Your task to perform on an android device: delete browsing data in the chrome app Image 0: 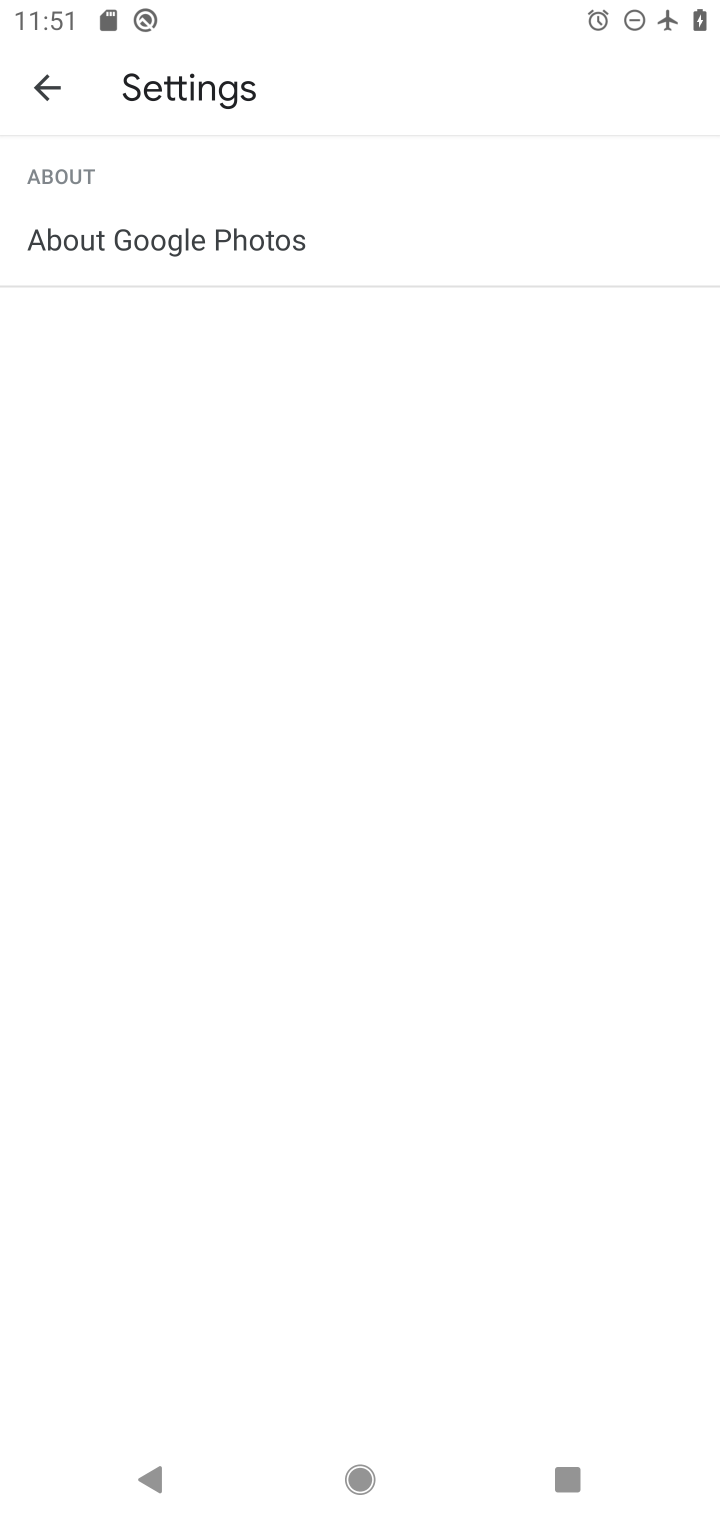
Step 0: press home button
Your task to perform on an android device: delete browsing data in the chrome app Image 1: 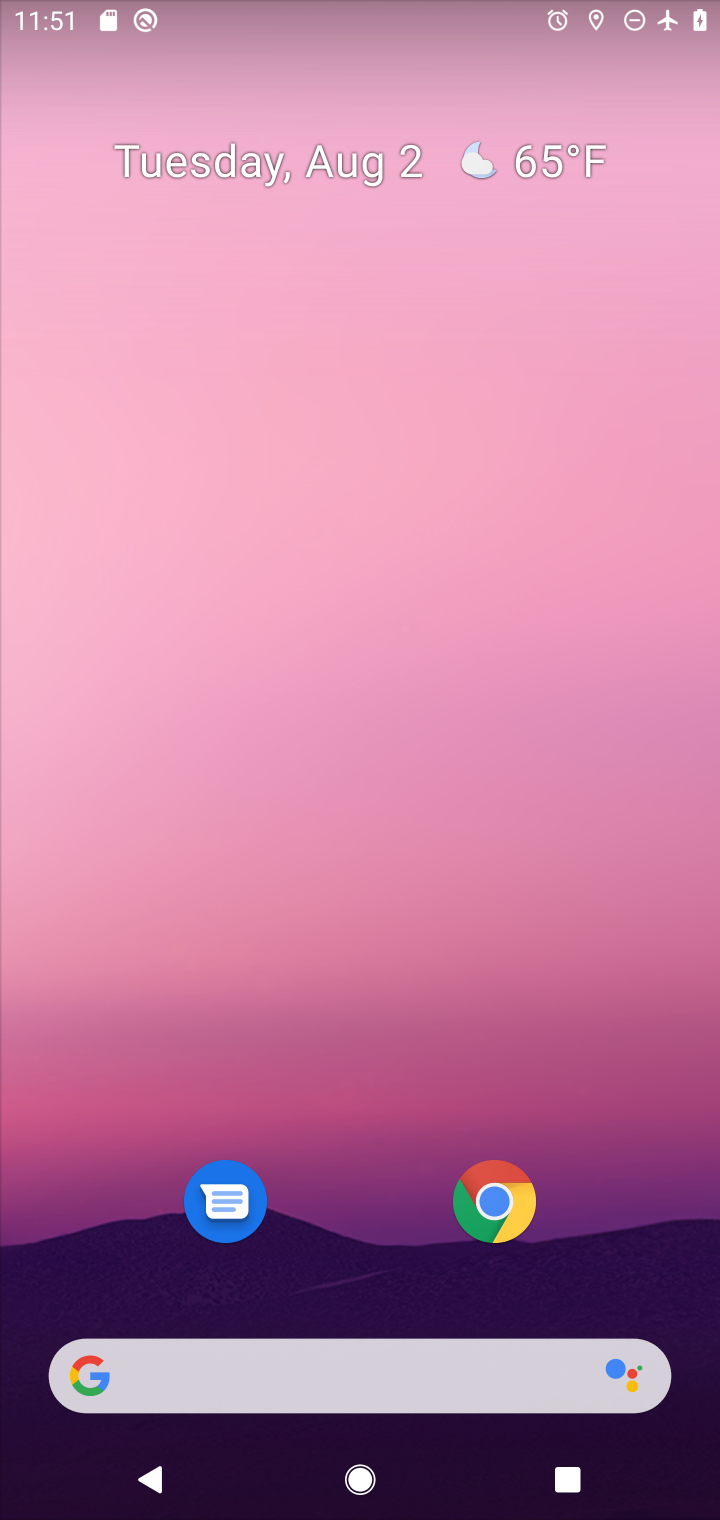
Step 1: drag from (425, 1367) to (580, 863)
Your task to perform on an android device: delete browsing data in the chrome app Image 2: 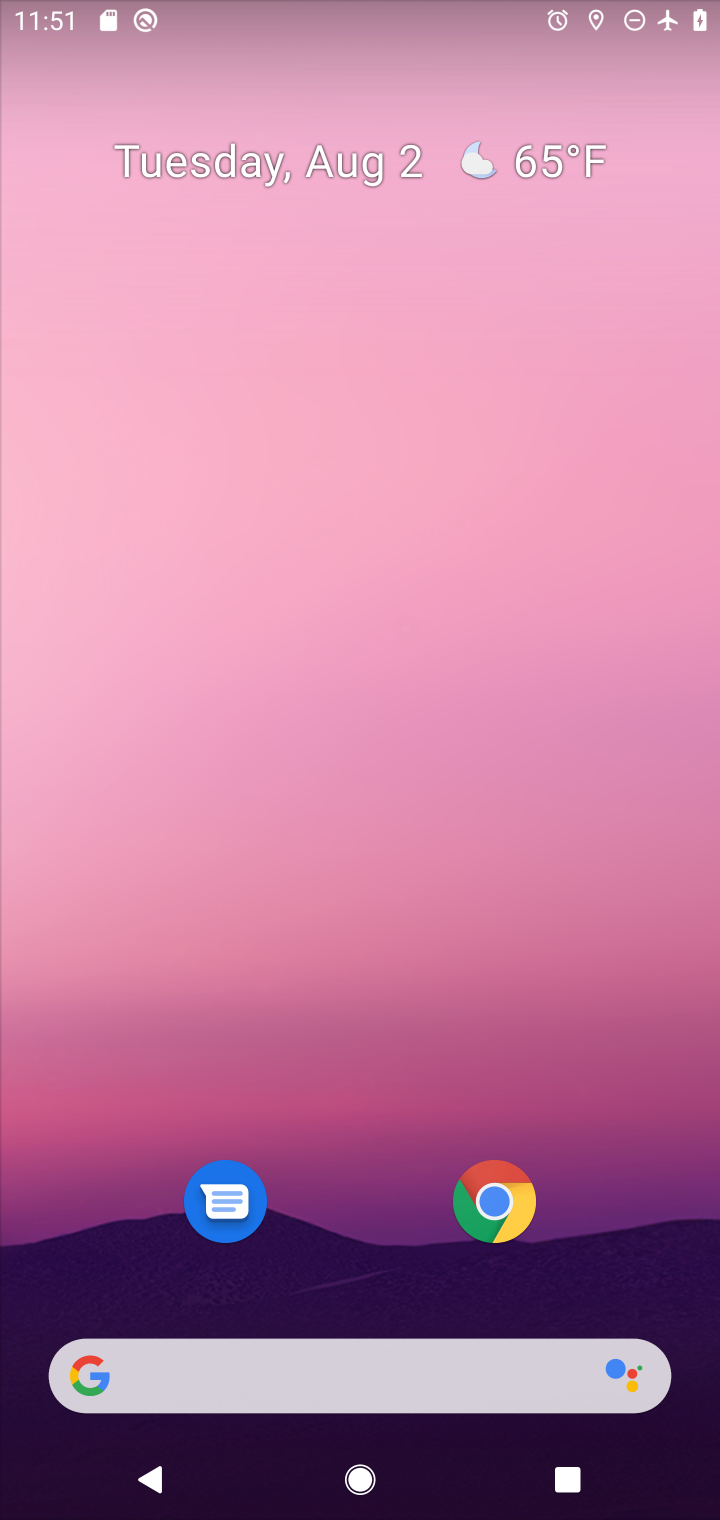
Step 2: drag from (432, 1315) to (391, 58)
Your task to perform on an android device: delete browsing data in the chrome app Image 3: 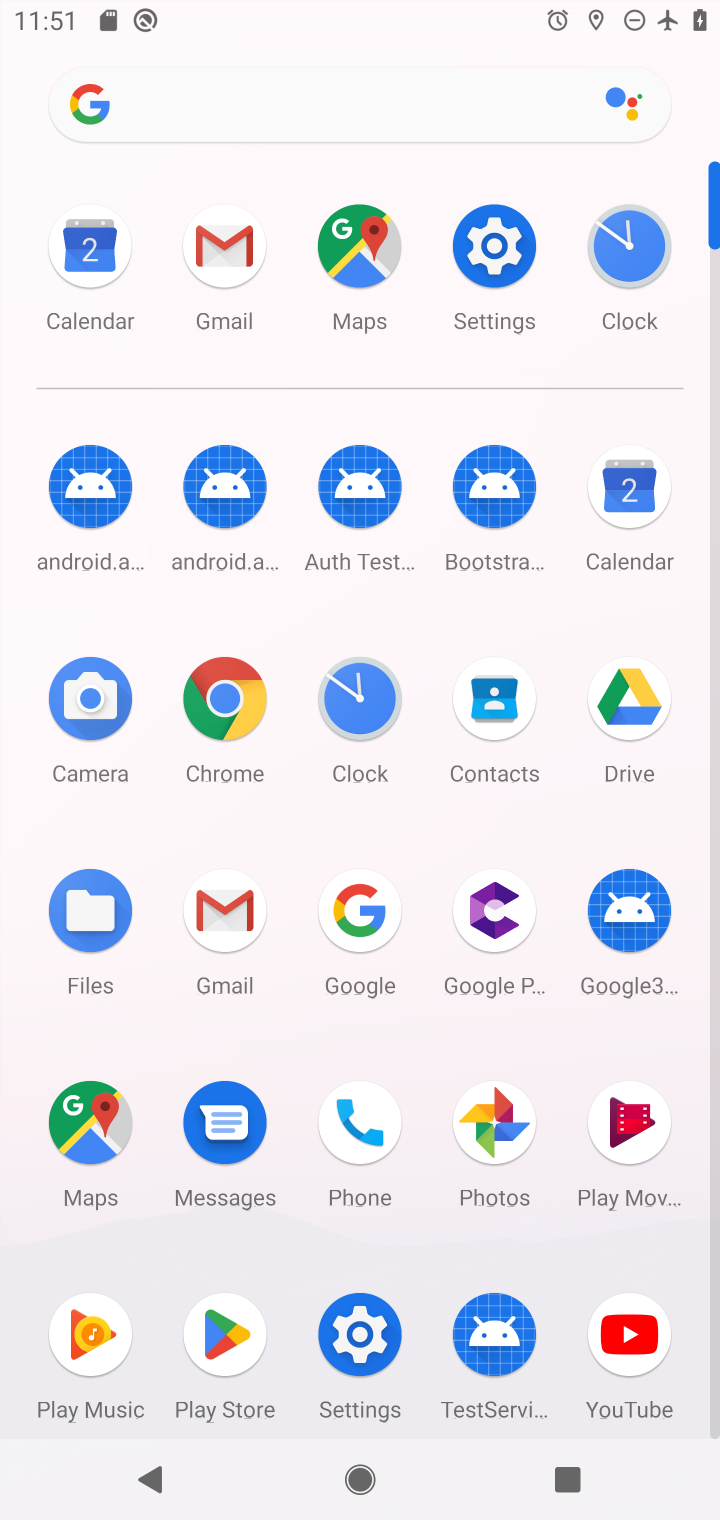
Step 3: click (199, 695)
Your task to perform on an android device: delete browsing data in the chrome app Image 4: 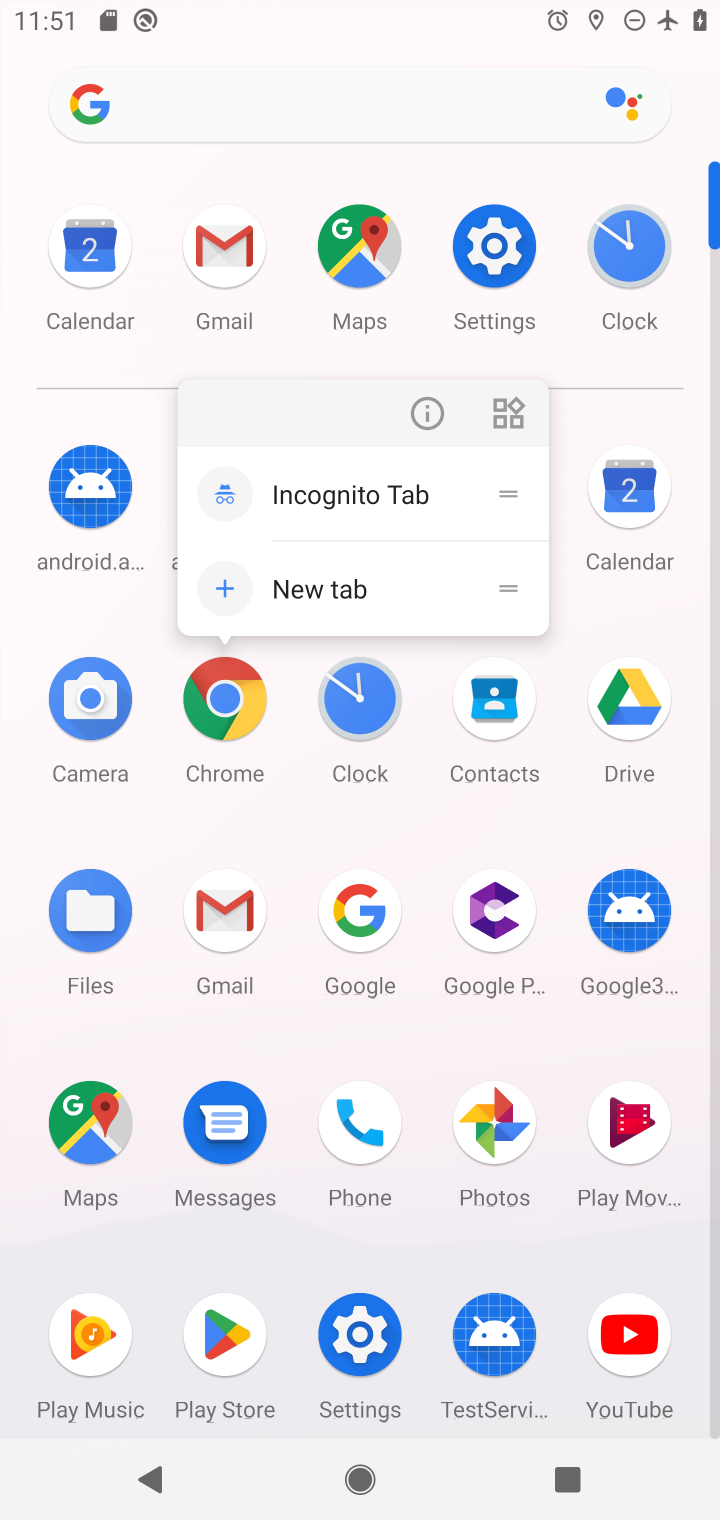
Step 4: click (242, 698)
Your task to perform on an android device: delete browsing data in the chrome app Image 5: 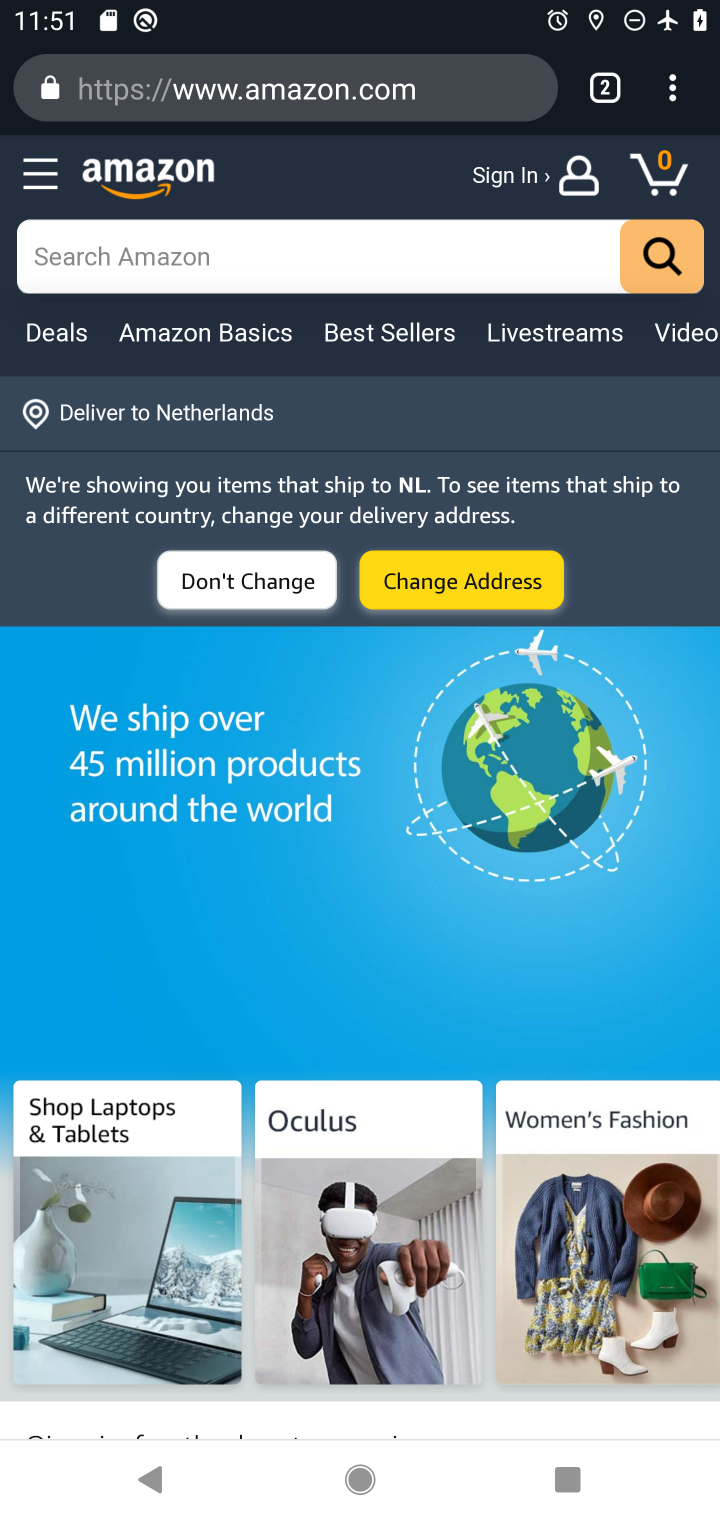
Step 5: drag from (667, 101) to (361, 489)
Your task to perform on an android device: delete browsing data in the chrome app Image 6: 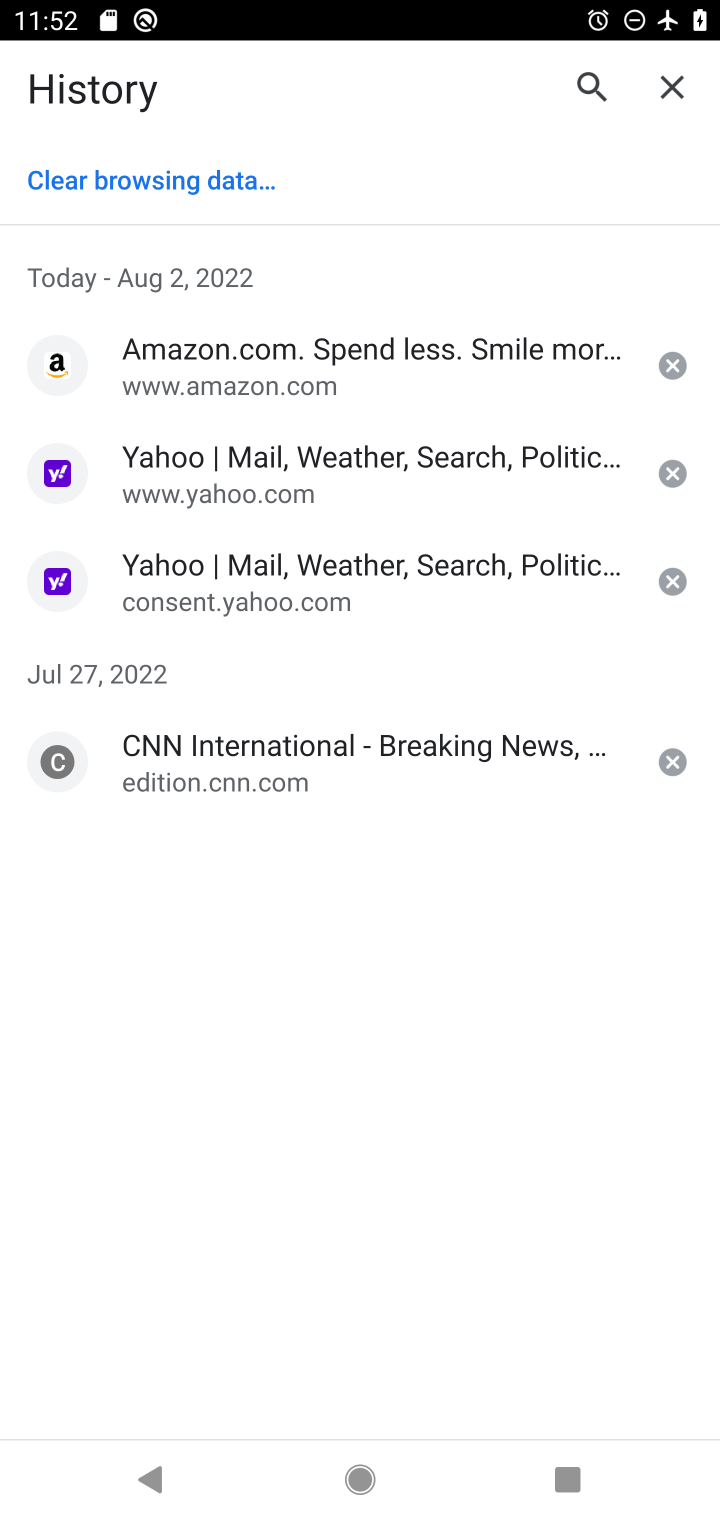
Step 6: click (150, 194)
Your task to perform on an android device: delete browsing data in the chrome app Image 7: 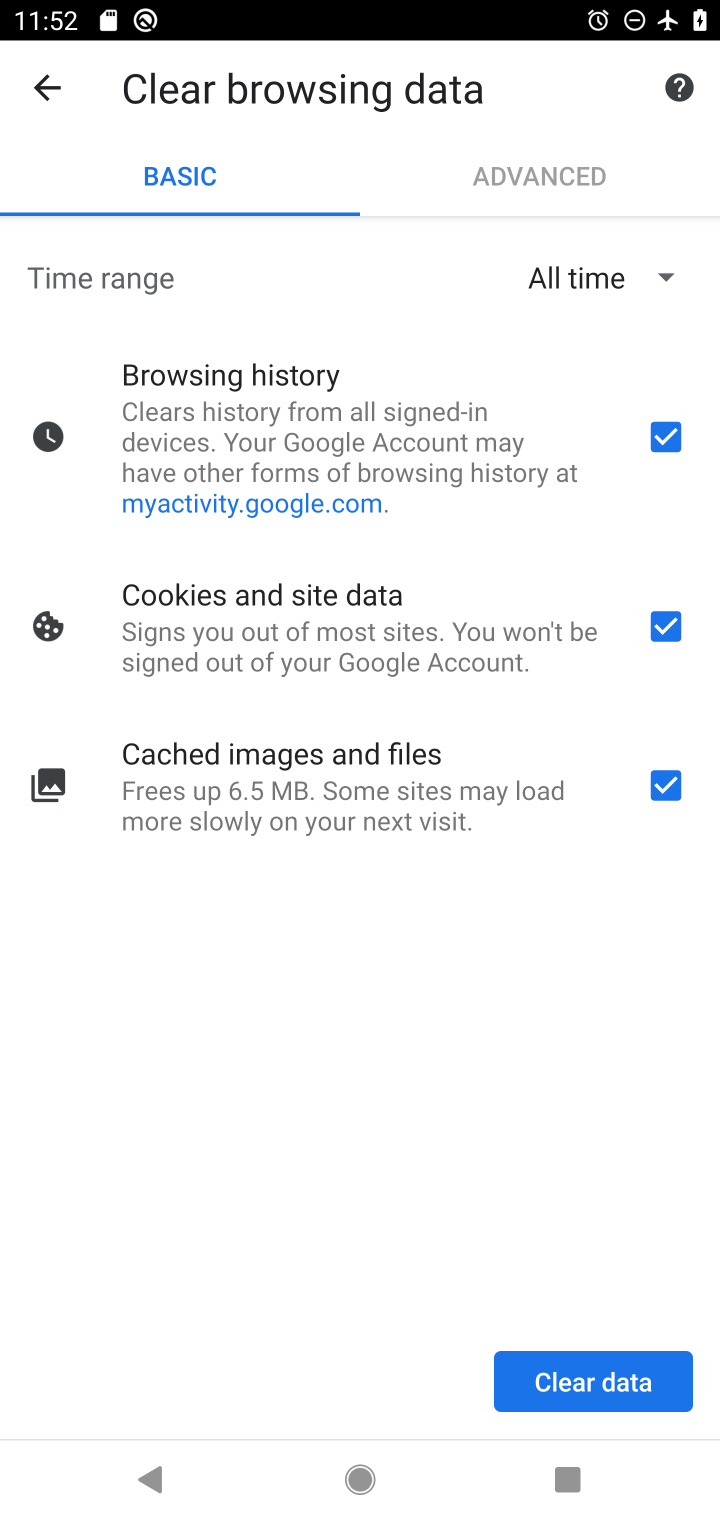
Step 7: click (641, 1359)
Your task to perform on an android device: delete browsing data in the chrome app Image 8: 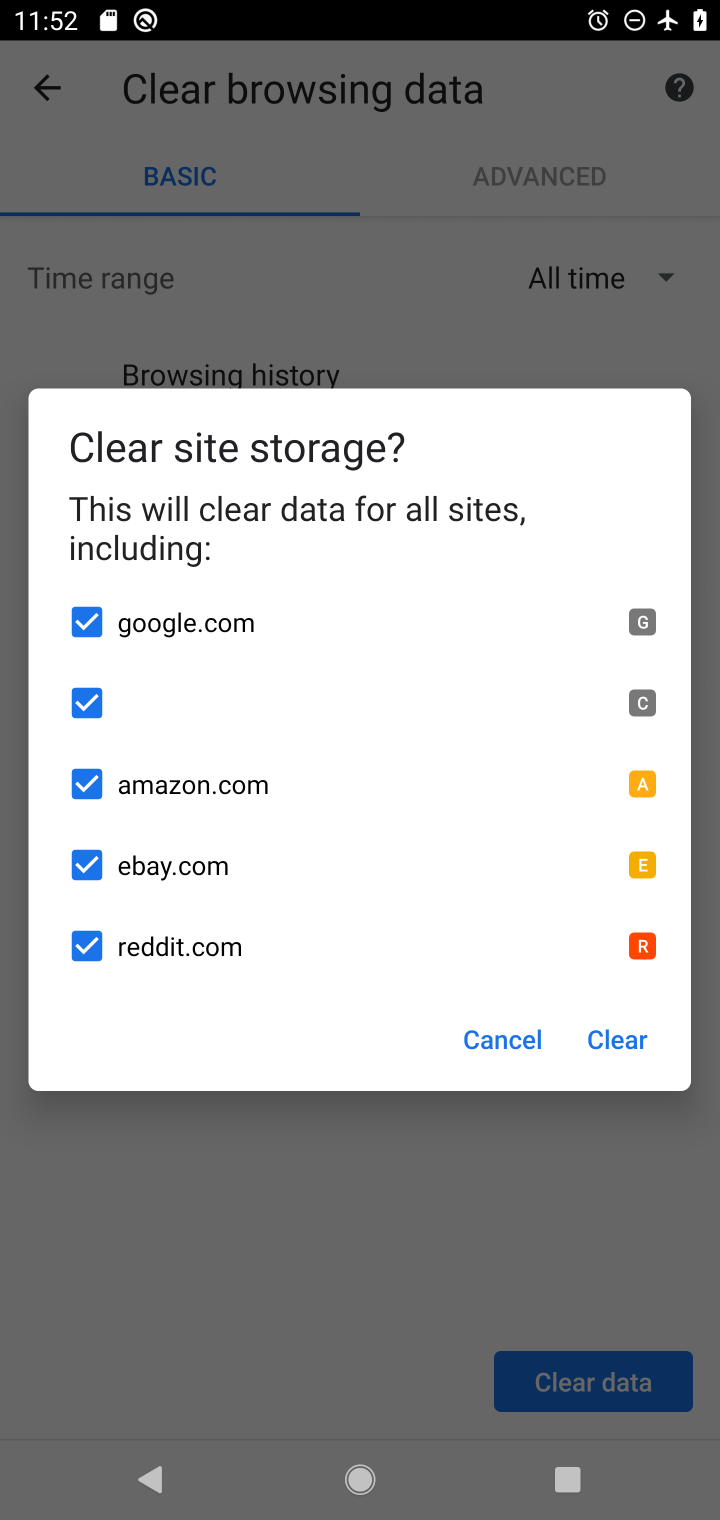
Step 8: click (617, 1018)
Your task to perform on an android device: delete browsing data in the chrome app Image 9: 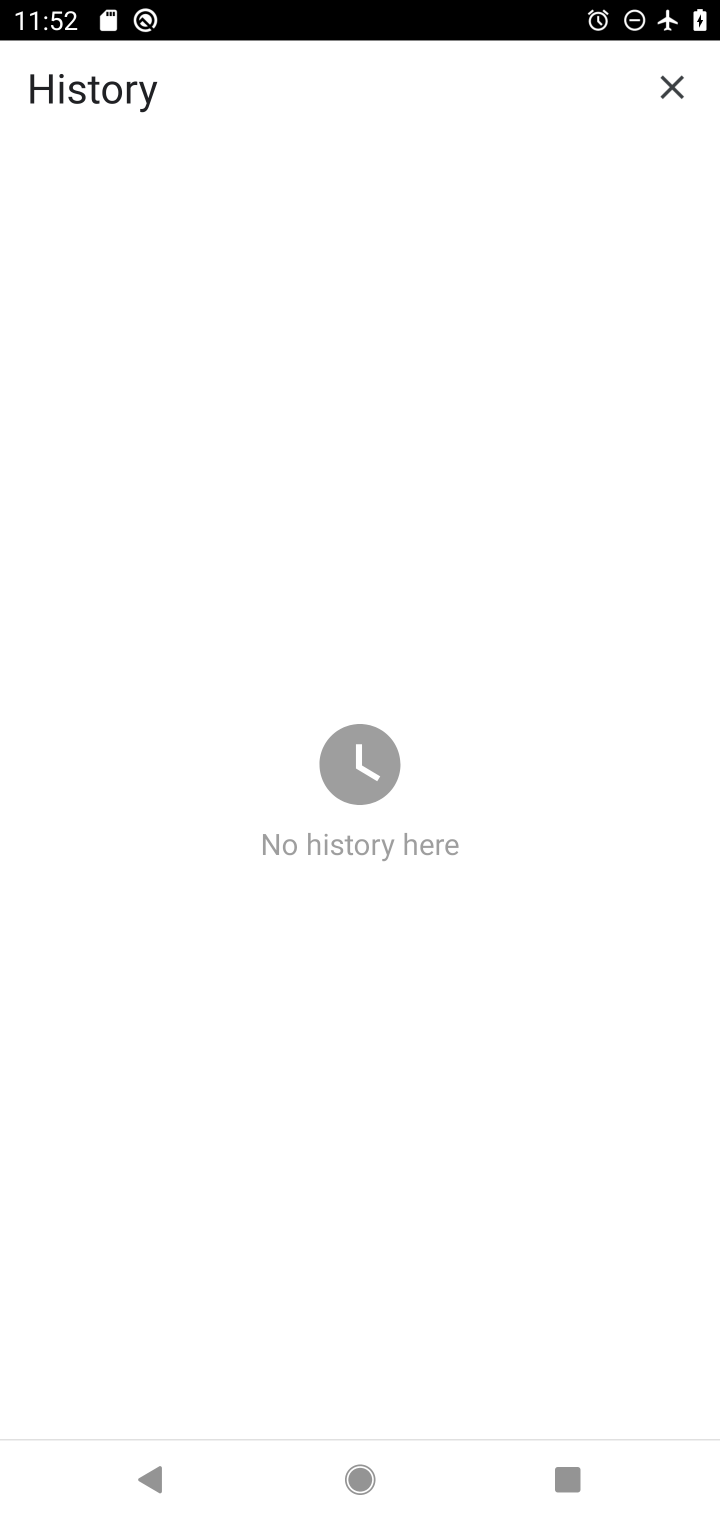
Step 9: task complete